Your task to perform on an android device: see creations saved in the google photos Image 0: 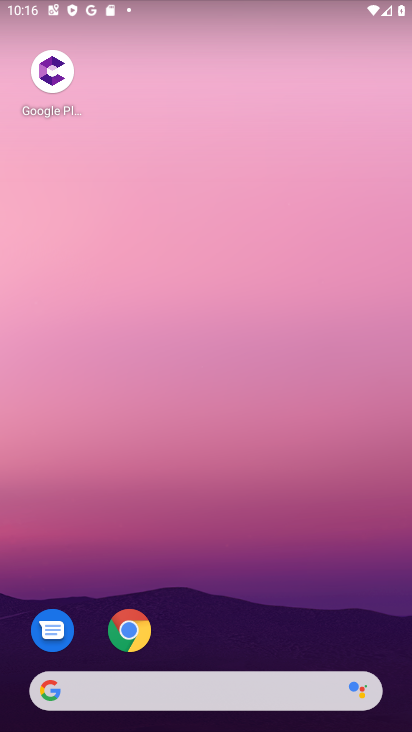
Step 0: drag from (229, 697) to (254, 66)
Your task to perform on an android device: see creations saved in the google photos Image 1: 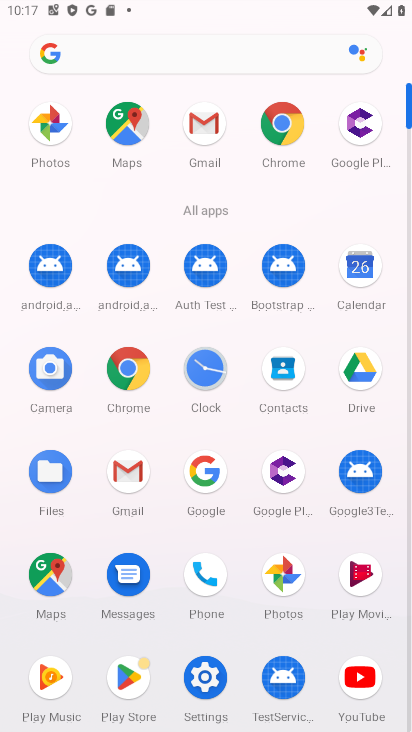
Step 1: click (50, 121)
Your task to perform on an android device: see creations saved in the google photos Image 2: 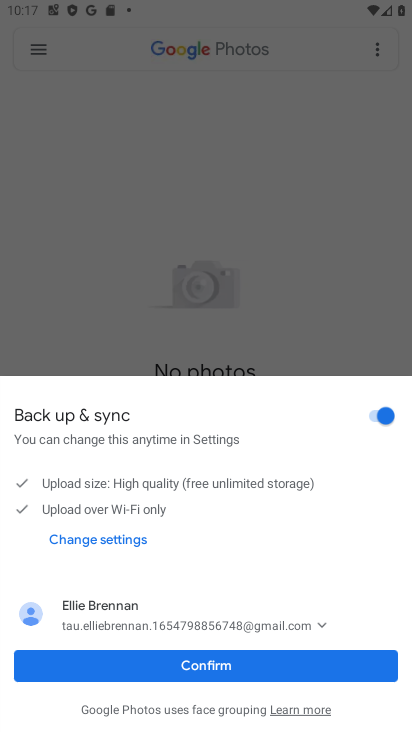
Step 2: click (196, 668)
Your task to perform on an android device: see creations saved in the google photos Image 3: 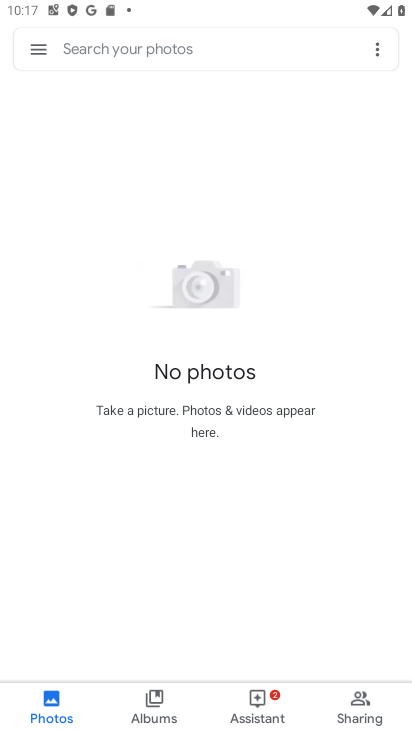
Step 3: click (38, 53)
Your task to perform on an android device: see creations saved in the google photos Image 4: 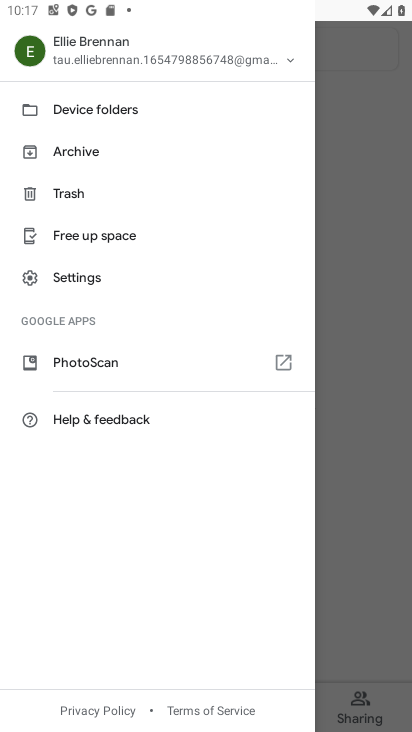
Step 4: click (78, 283)
Your task to perform on an android device: see creations saved in the google photos Image 5: 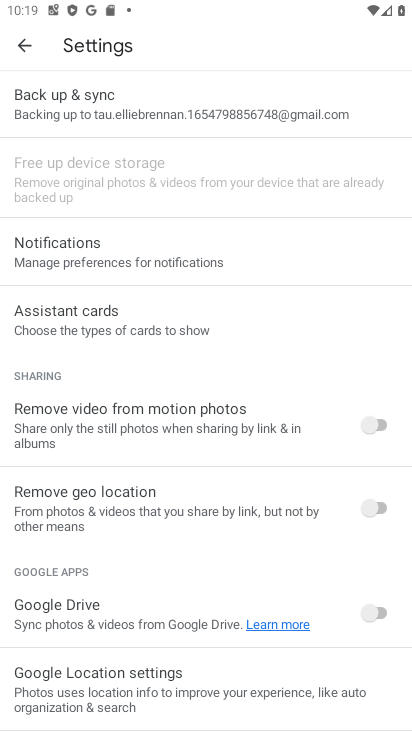
Step 5: click (13, 42)
Your task to perform on an android device: see creations saved in the google photos Image 6: 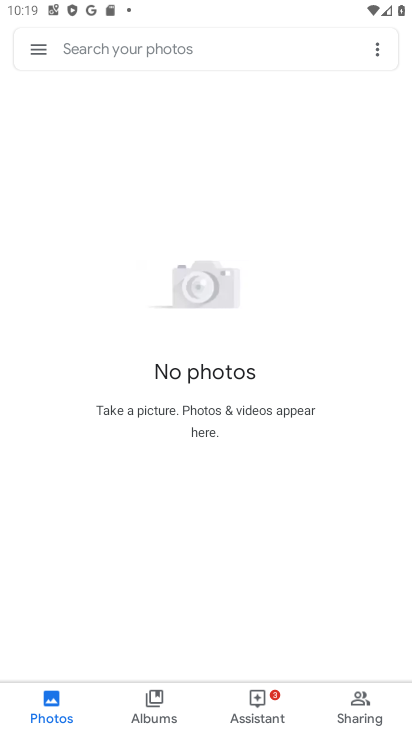
Step 6: click (262, 43)
Your task to perform on an android device: see creations saved in the google photos Image 7: 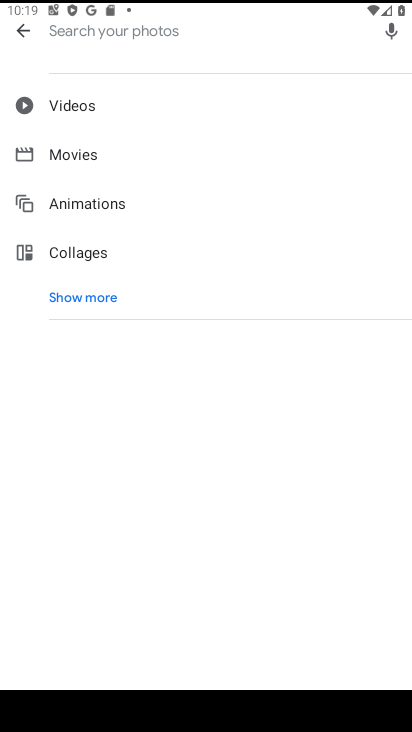
Step 7: click (88, 295)
Your task to perform on an android device: see creations saved in the google photos Image 8: 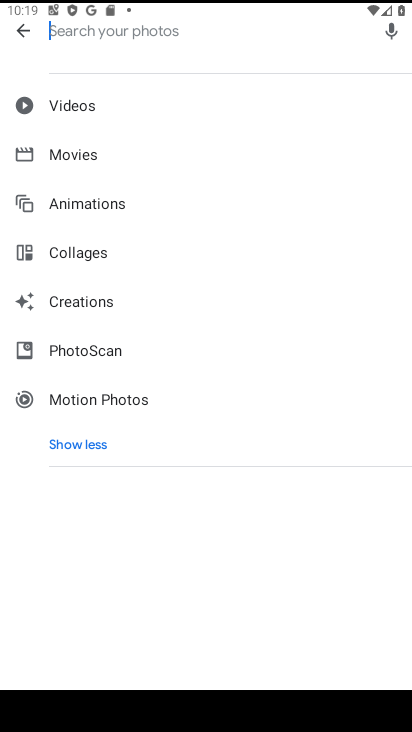
Step 8: click (85, 307)
Your task to perform on an android device: see creations saved in the google photos Image 9: 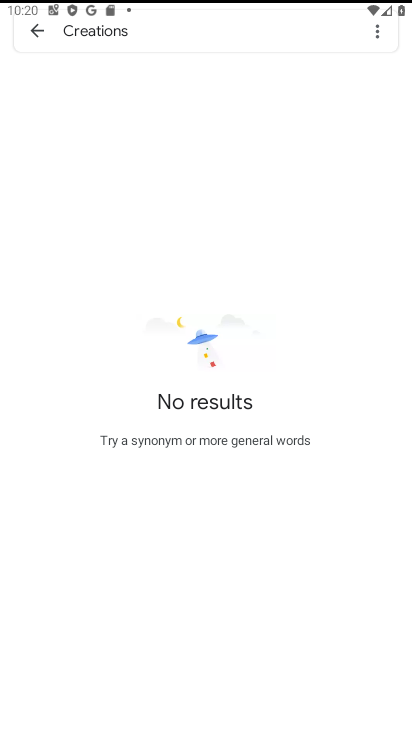
Step 9: task complete